Your task to perform on an android device: delete a single message in the gmail app Image 0: 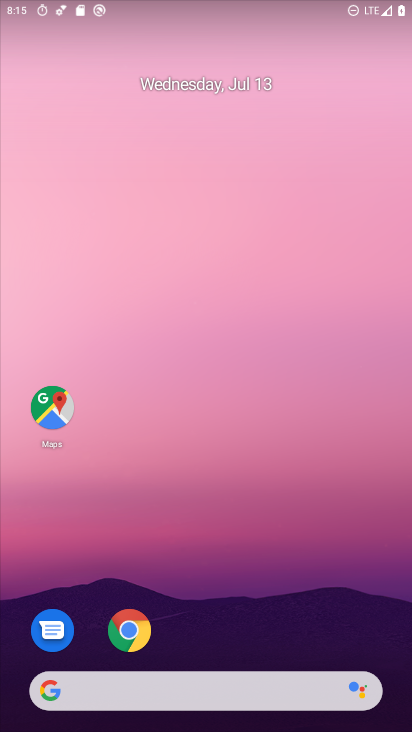
Step 0: drag from (376, 641) to (164, 0)
Your task to perform on an android device: delete a single message in the gmail app Image 1: 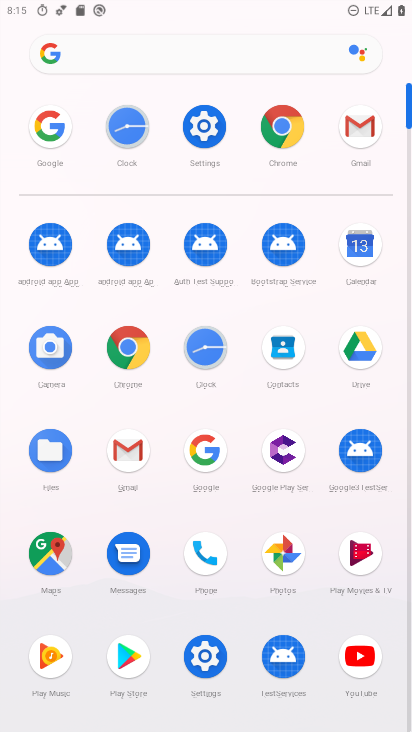
Step 1: click (140, 458)
Your task to perform on an android device: delete a single message in the gmail app Image 2: 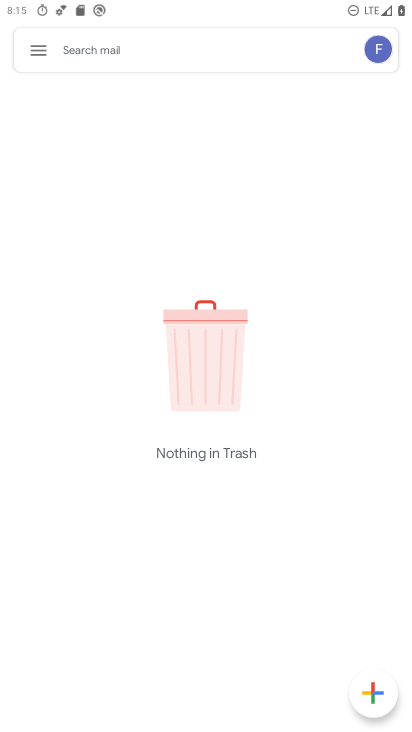
Step 2: click (33, 43)
Your task to perform on an android device: delete a single message in the gmail app Image 3: 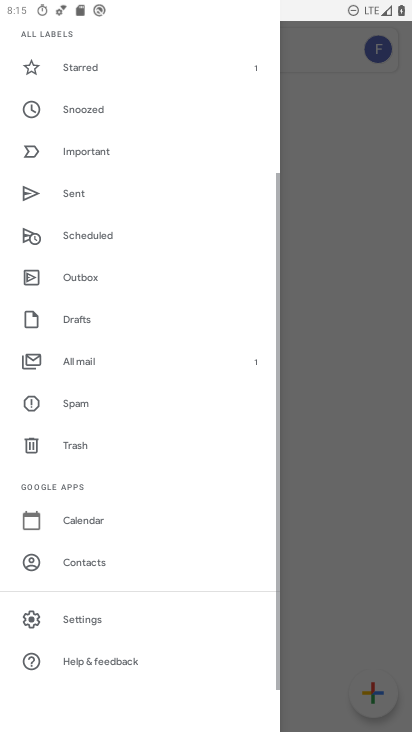
Step 3: drag from (47, 68) to (88, 686)
Your task to perform on an android device: delete a single message in the gmail app Image 4: 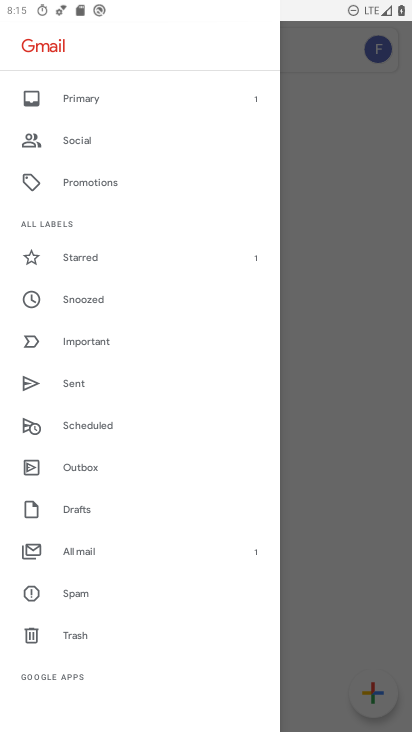
Step 4: click (71, 104)
Your task to perform on an android device: delete a single message in the gmail app Image 5: 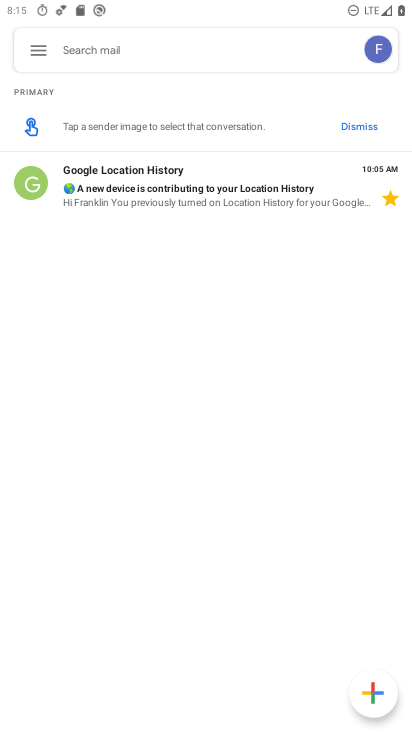
Step 5: click (133, 187)
Your task to perform on an android device: delete a single message in the gmail app Image 6: 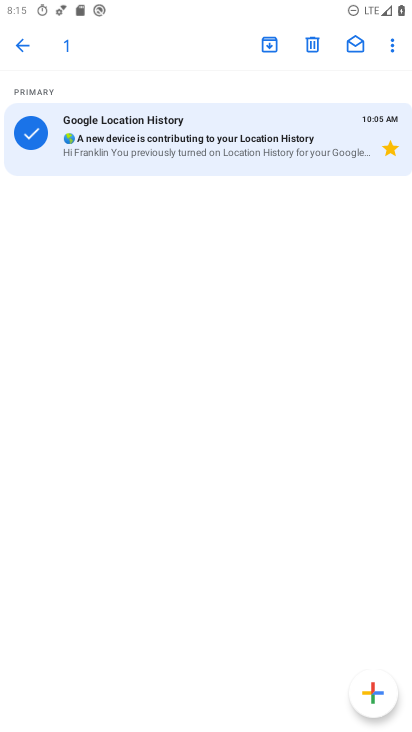
Step 6: click (318, 42)
Your task to perform on an android device: delete a single message in the gmail app Image 7: 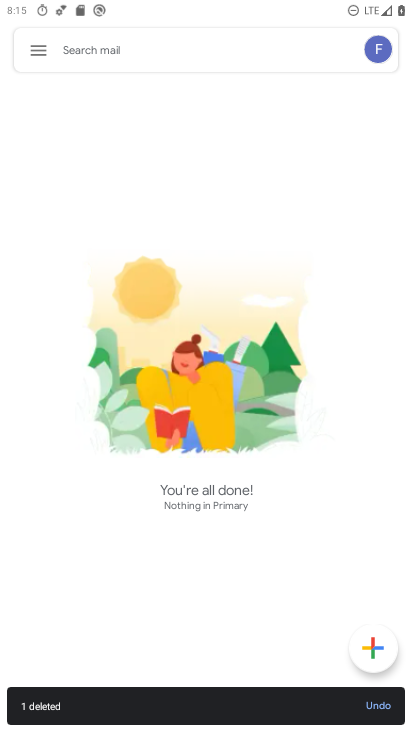
Step 7: task complete